Your task to perform on an android device: What's the weather? Image 0: 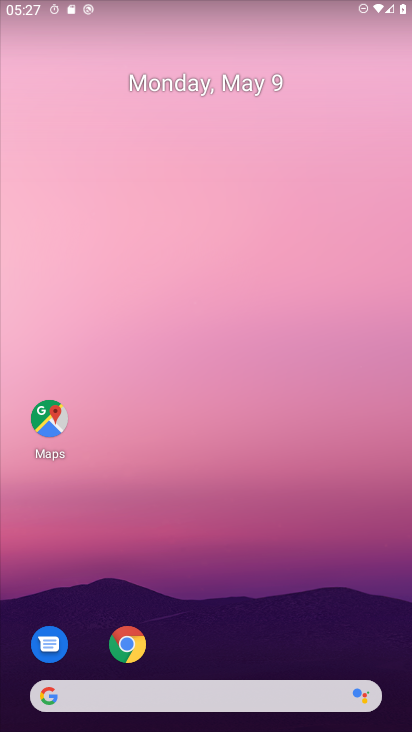
Step 0: drag from (252, 594) to (192, 10)
Your task to perform on an android device: What's the weather? Image 1: 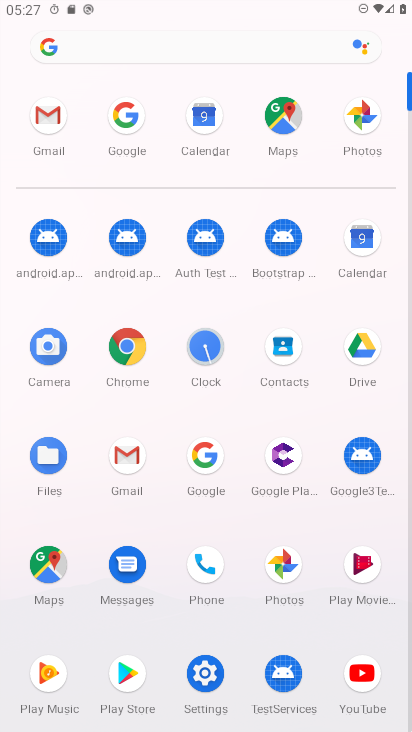
Step 1: click (122, 115)
Your task to perform on an android device: What's the weather? Image 2: 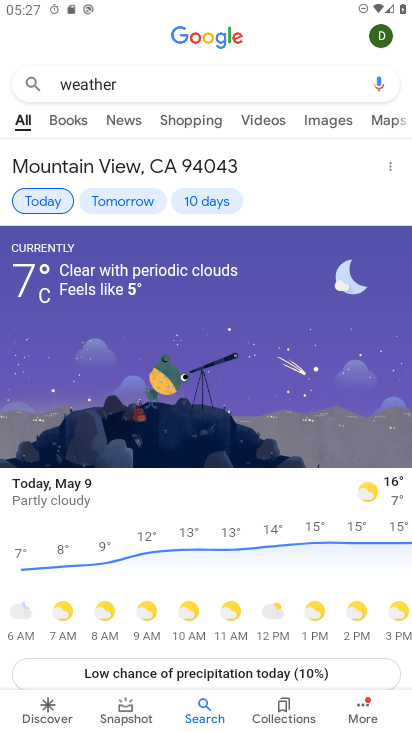
Step 2: task complete